Your task to perform on an android device: Search for the best gaming monitor on Best Buy Image 0: 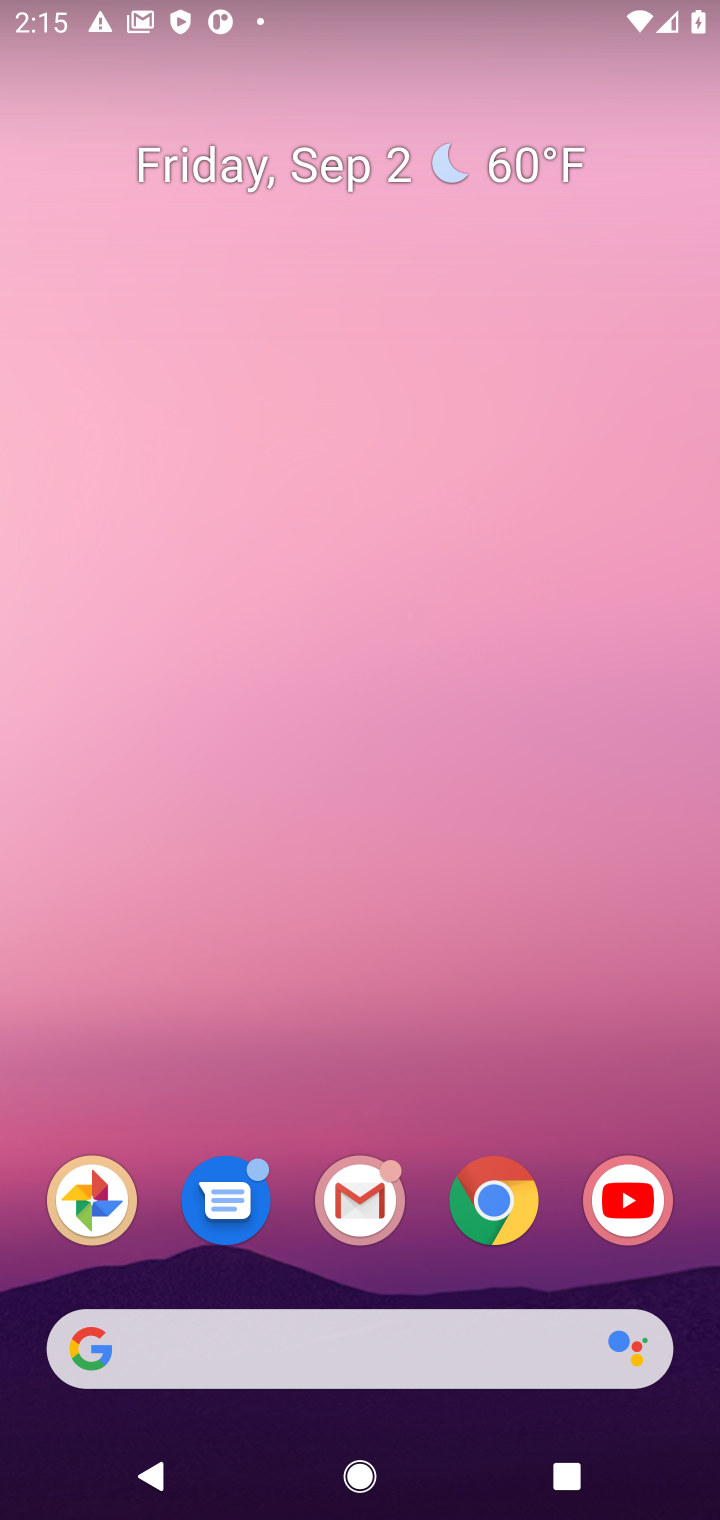
Step 0: click (496, 1199)
Your task to perform on an android device: Search for the best gaming monitor on Best Buy Image 1: 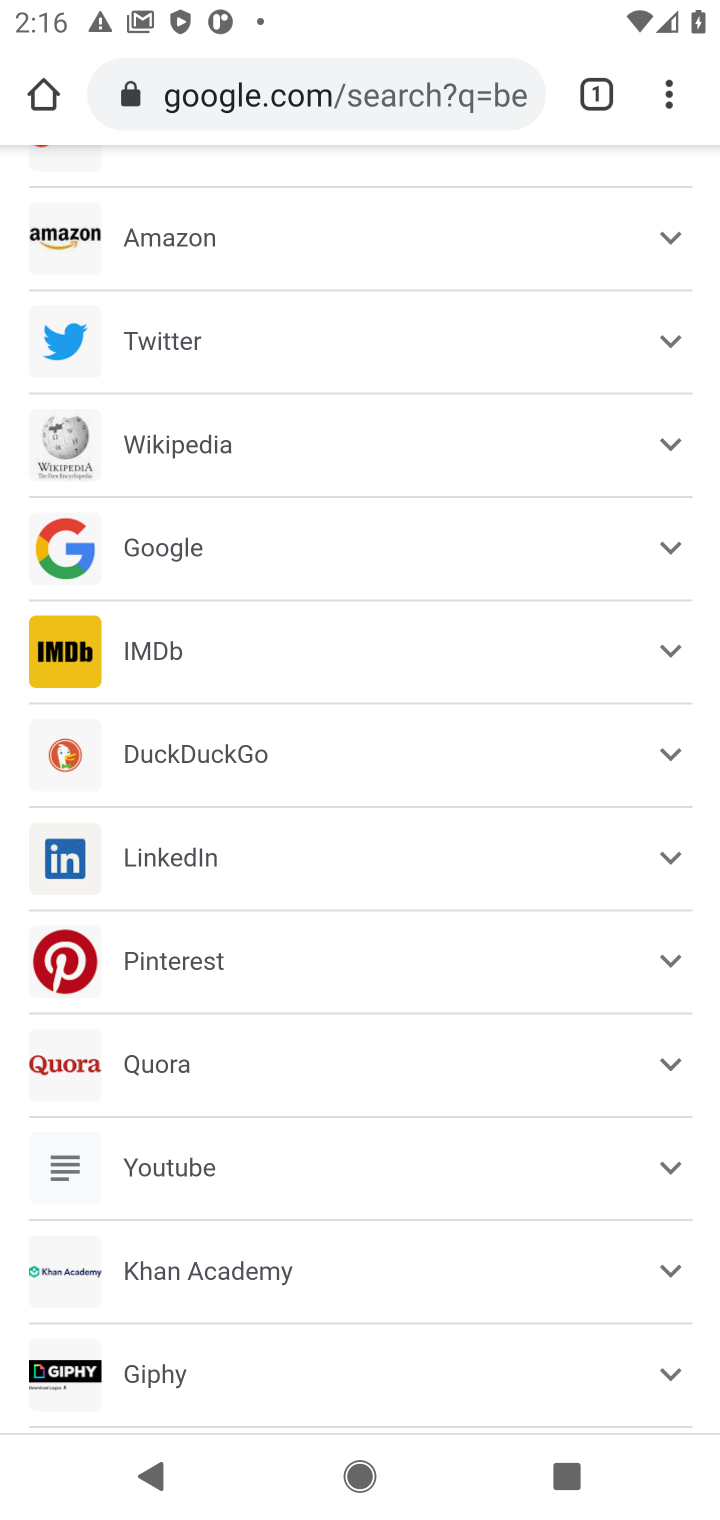
Step 1: click (352, 77)
Your task to perform on an android device: Search for the best gaming monitor on Best Buy Image 2: 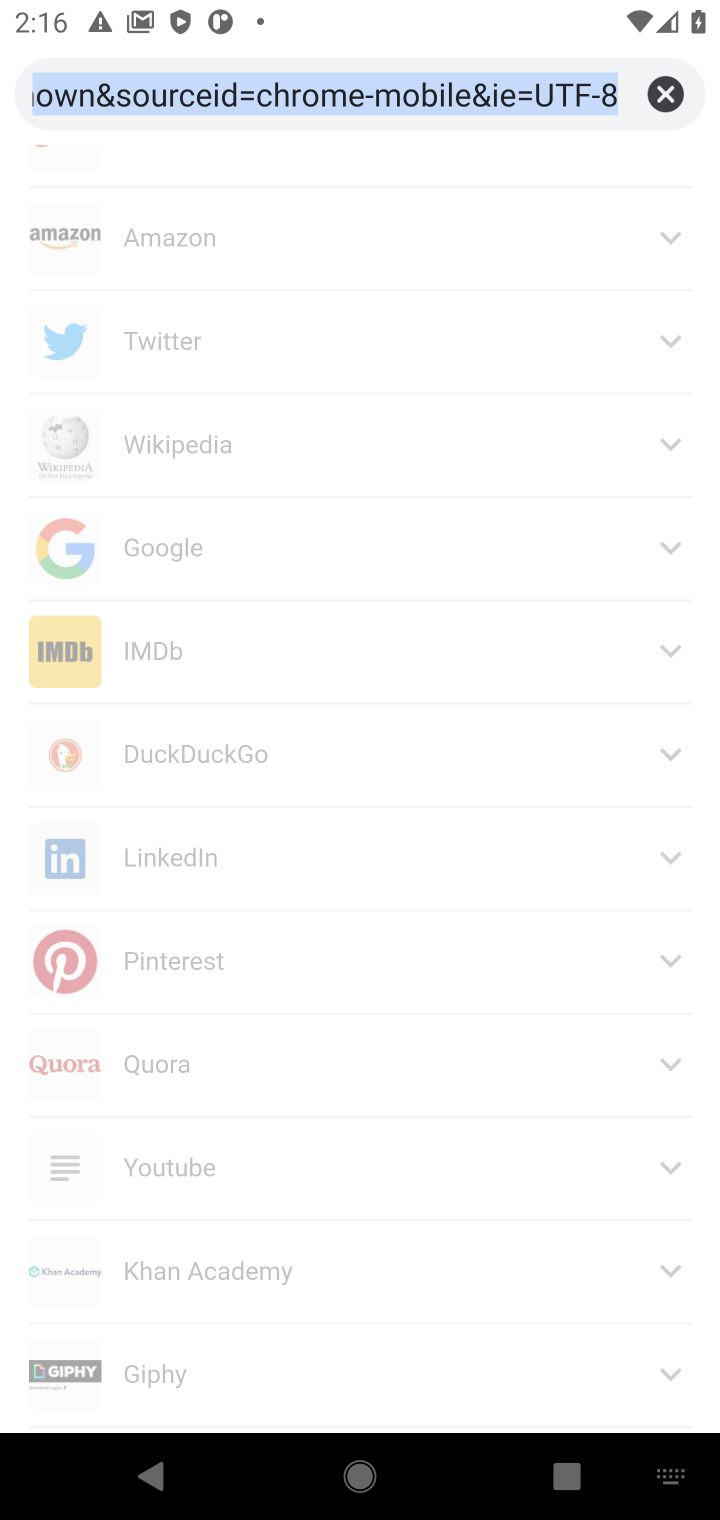
Step 2: click (665, 84)
Your task to perform on an android device: Search for the best gaming monitor on Best Buy Image 3: 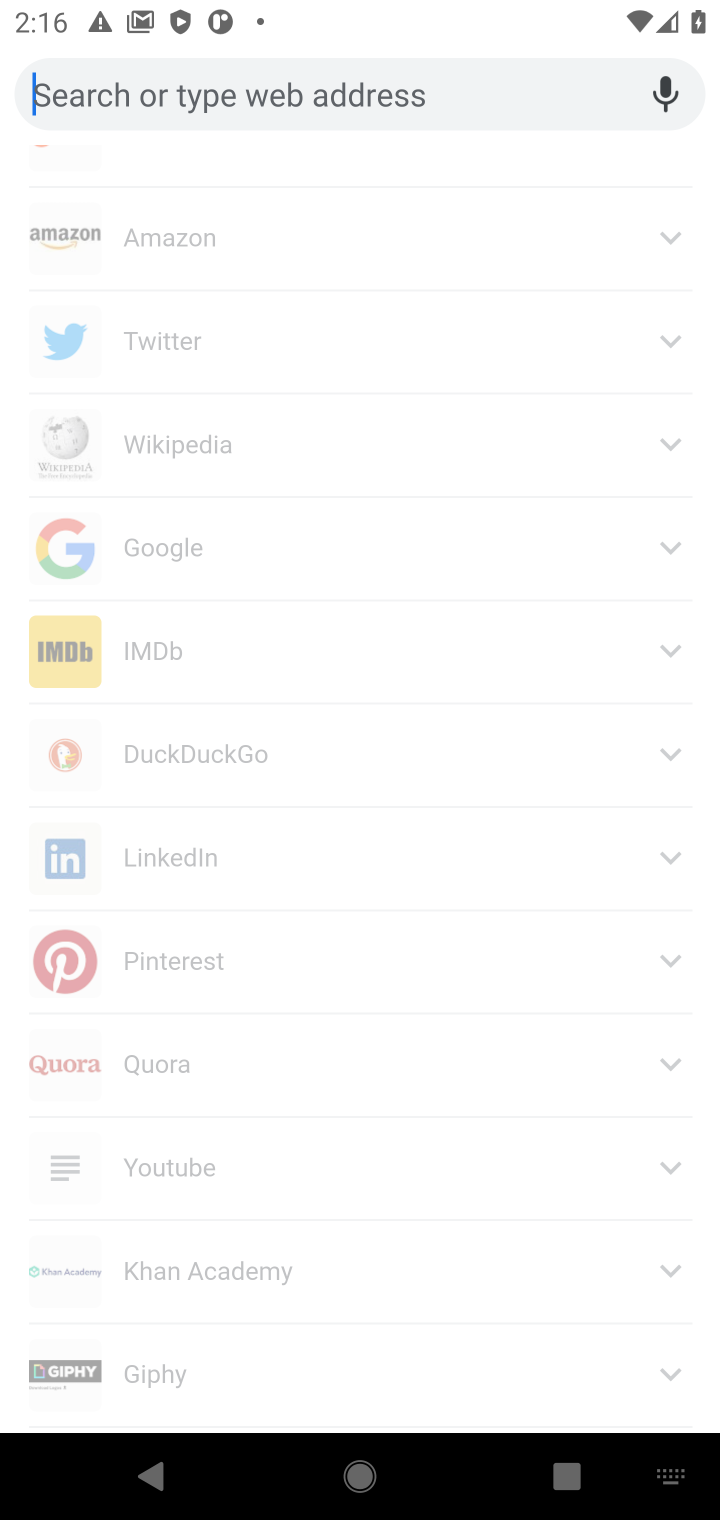
Step 3: click (499, 85)
Your task to perform on an android device: Search for the best gaming monitor on Best Buy Image 4: 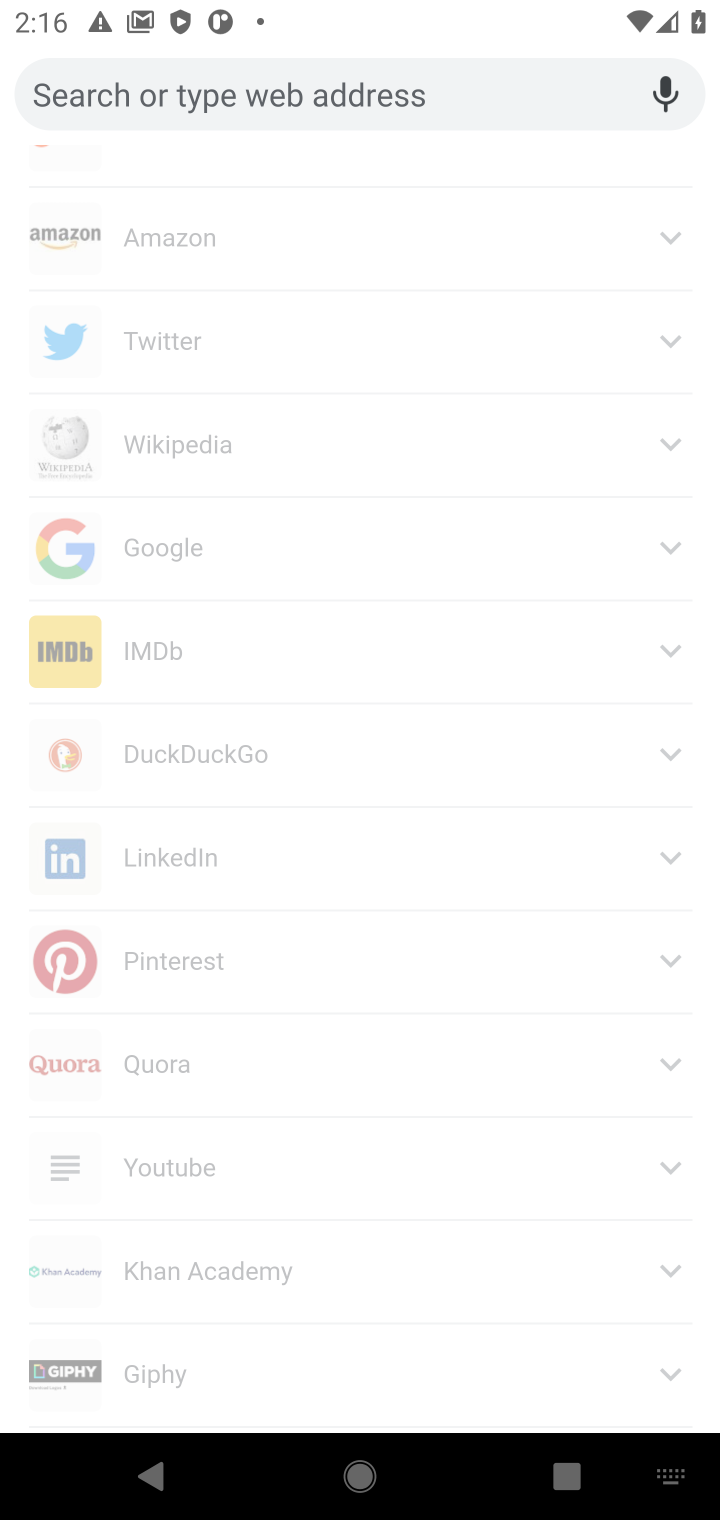
Step 4: type "Best Buy"
Your task to perform on an android device: Search for the best gaming monitor on Best Buy Image 5: 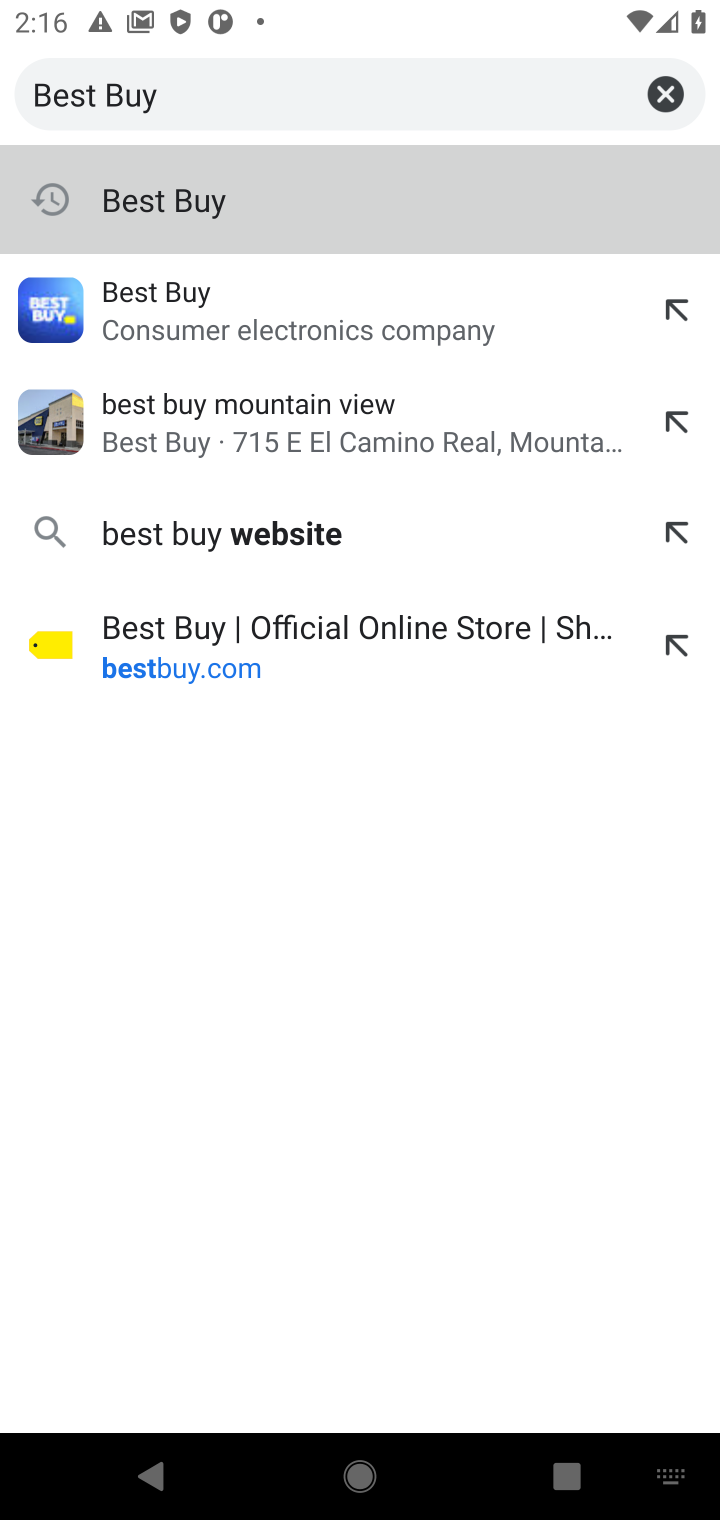
Step 5: press enter
Your task to perform on an android device: Search for the best gaming monitor on Best Buy Image 6: 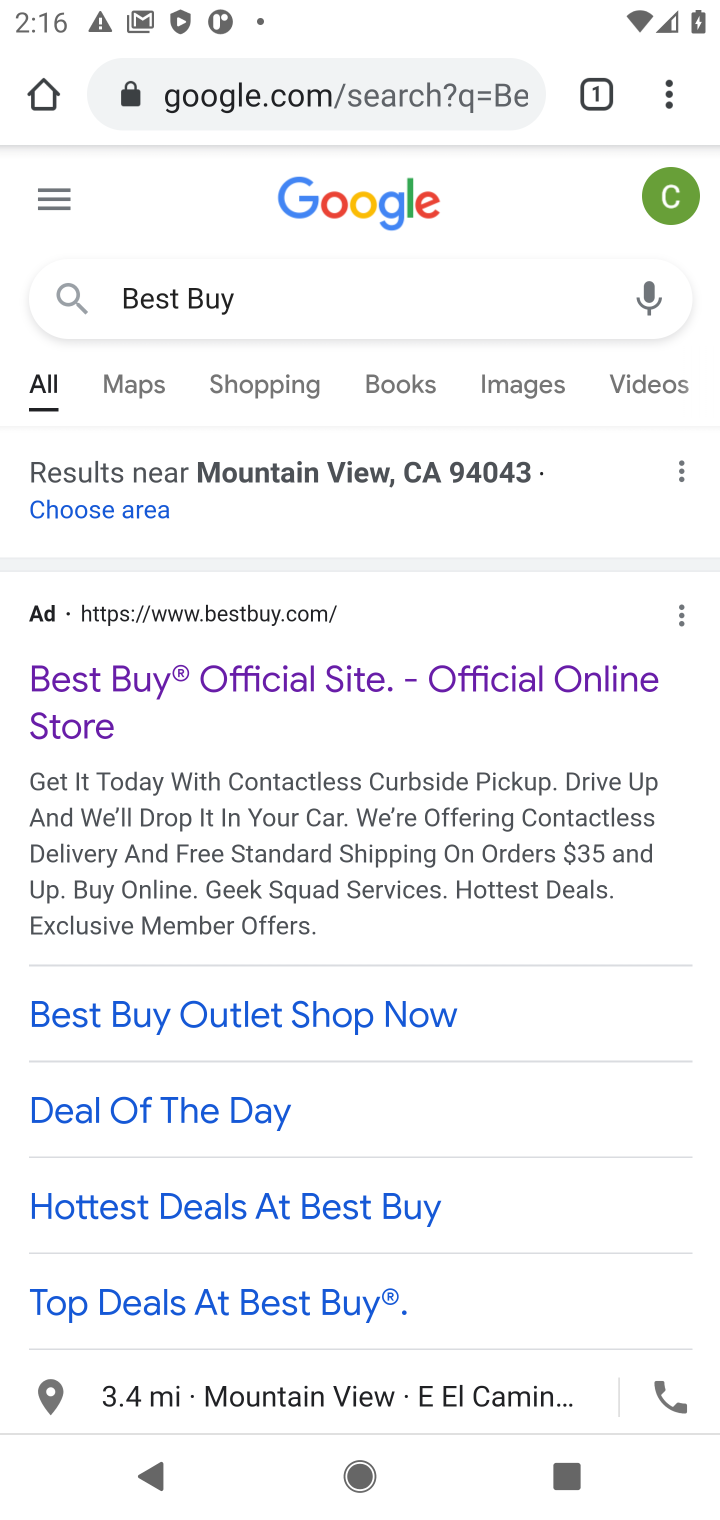
Step 6: drag from (525, 789) to (597, 216)
Your task to perform on an android device: Search for the best gaming monitor on Best Buy Image 7: 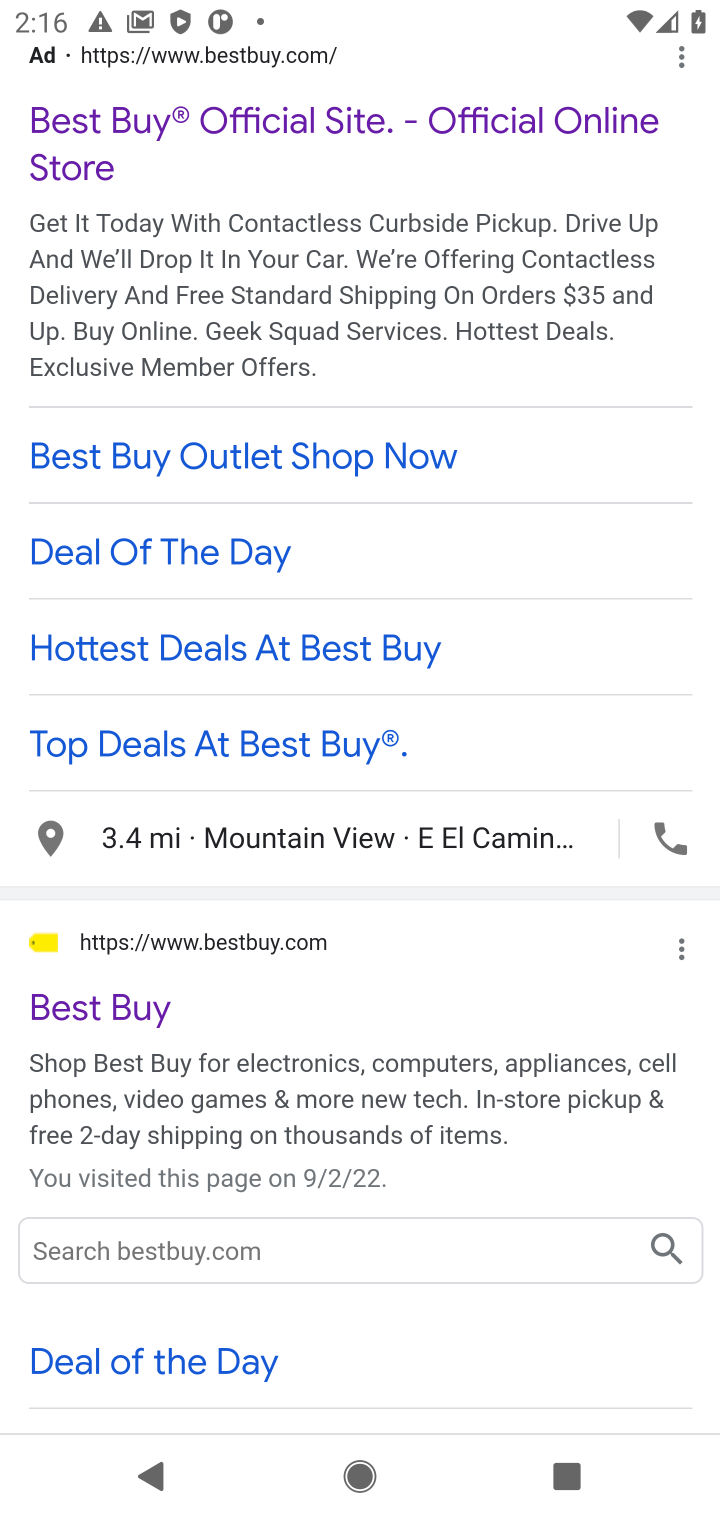
Step 7: click (108, 1009)
Your task to perform on an android device: Search for the best gaming monitor on Best Buy Image 8: 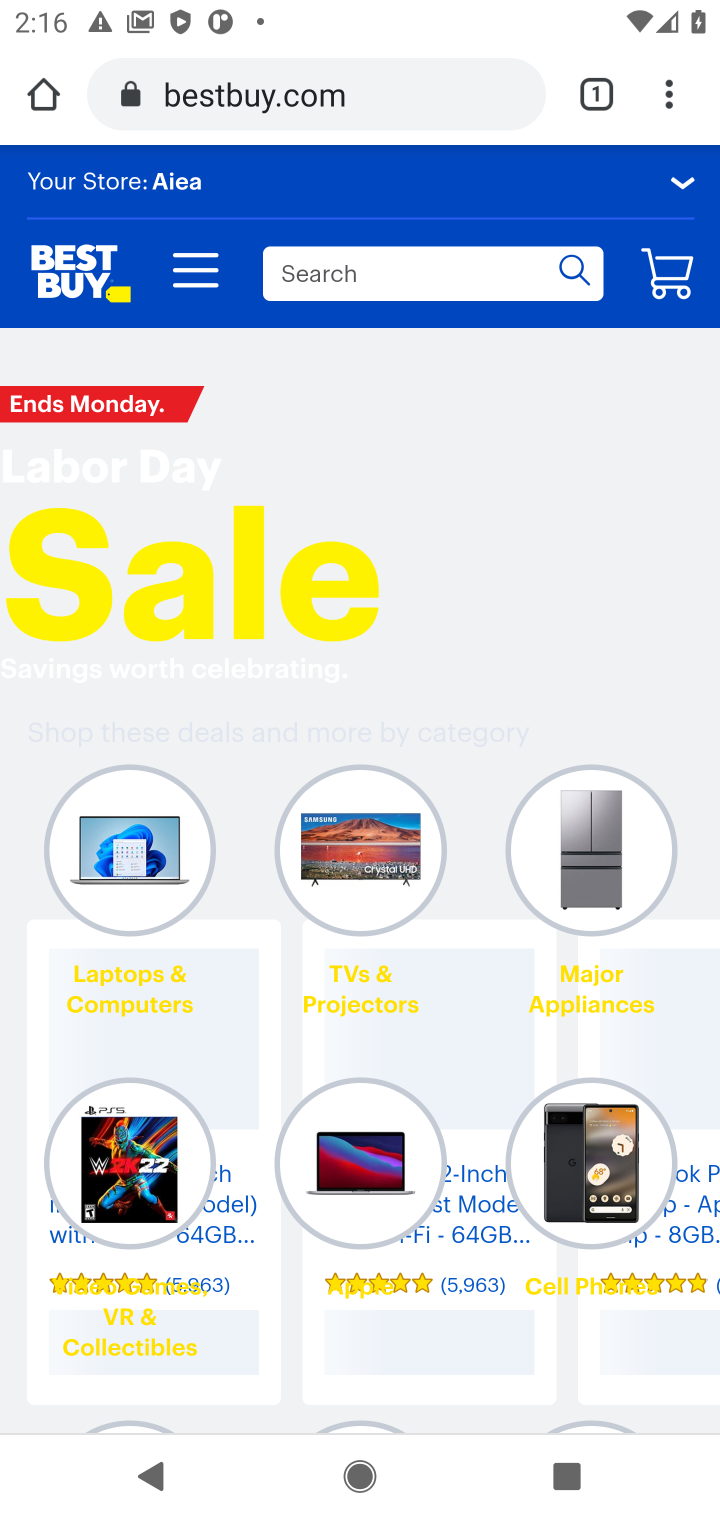
Step 8: click (428, 276)
Your task to perform on an android device: Search for the best gaming monitor on Best Buy Image 9: 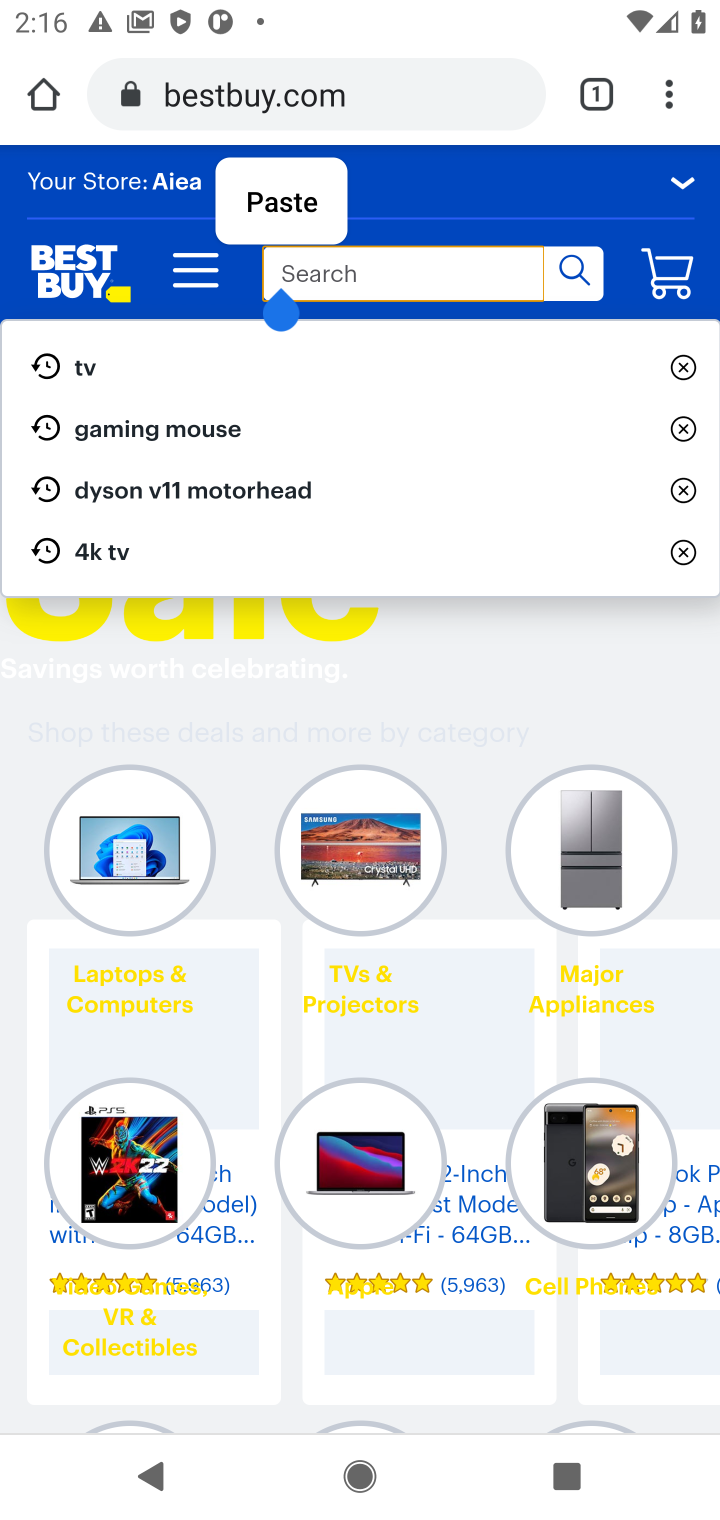
Step 9: click (451, 274)
Your task to perform on an android device: Search for the best gaming monitor on Best Buy Image 10: 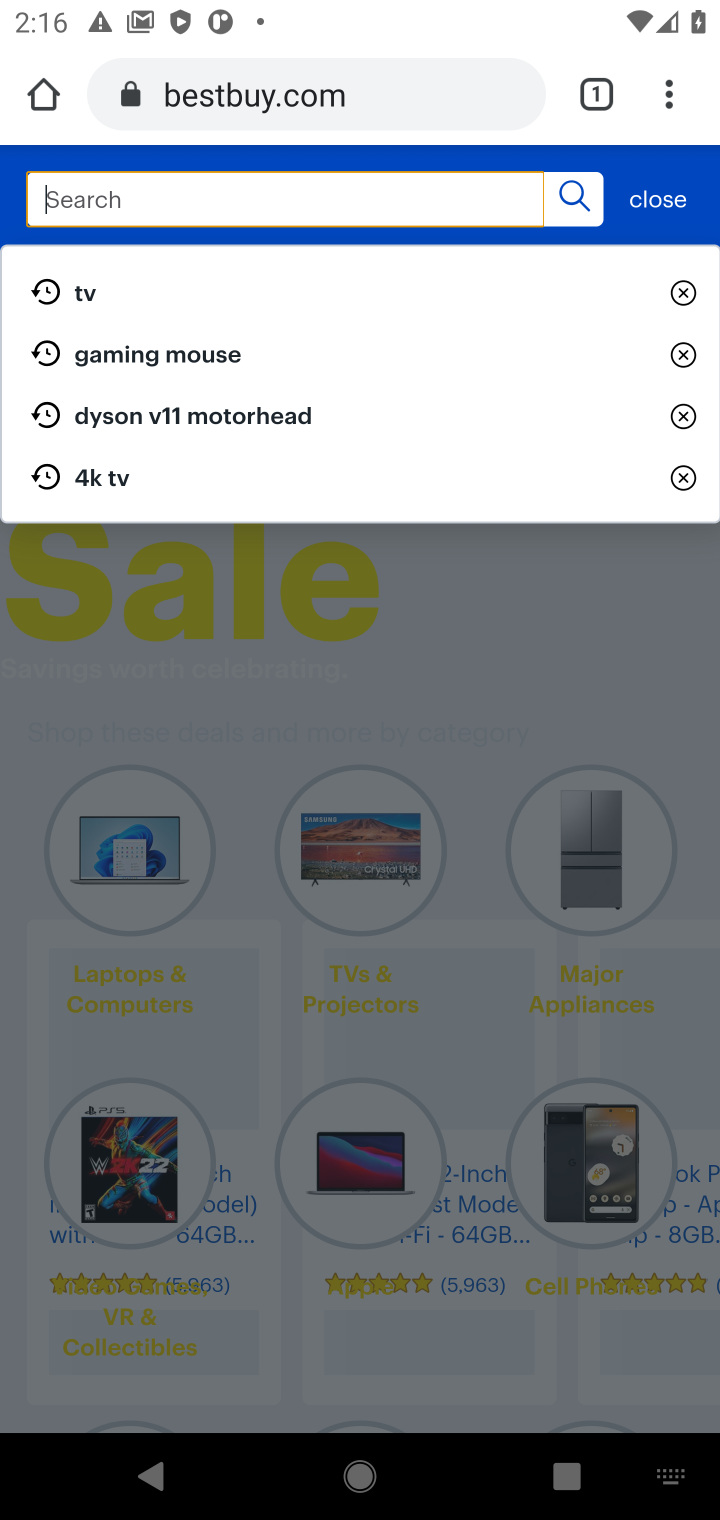
Step 10: click (425, 186)
Your task to perform on an android device: Search for the best gaming monitor on Best Buy Image 11: 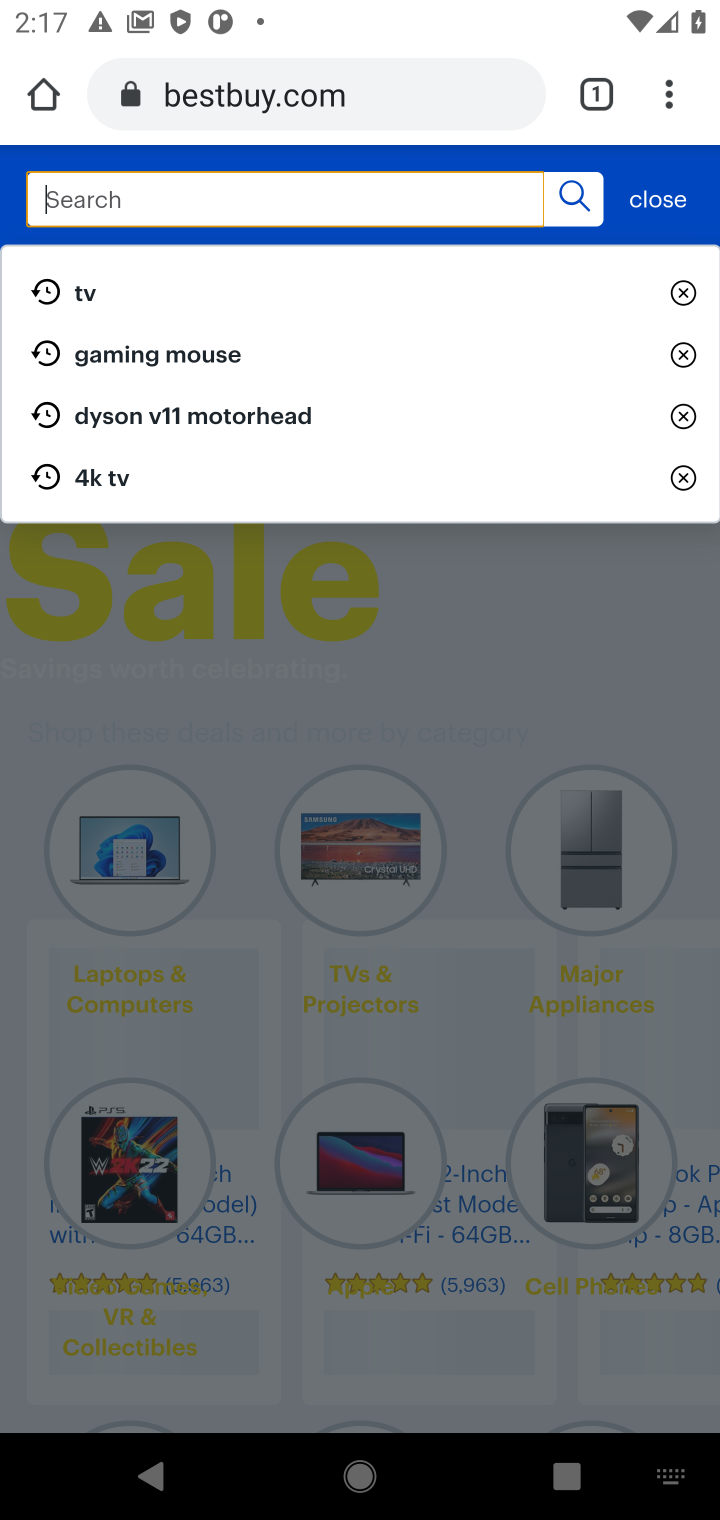
Step 11: type " gaming monitor "
Your task to perform on an android device: Search for the best gaming monitor on Best Buy Image 12: 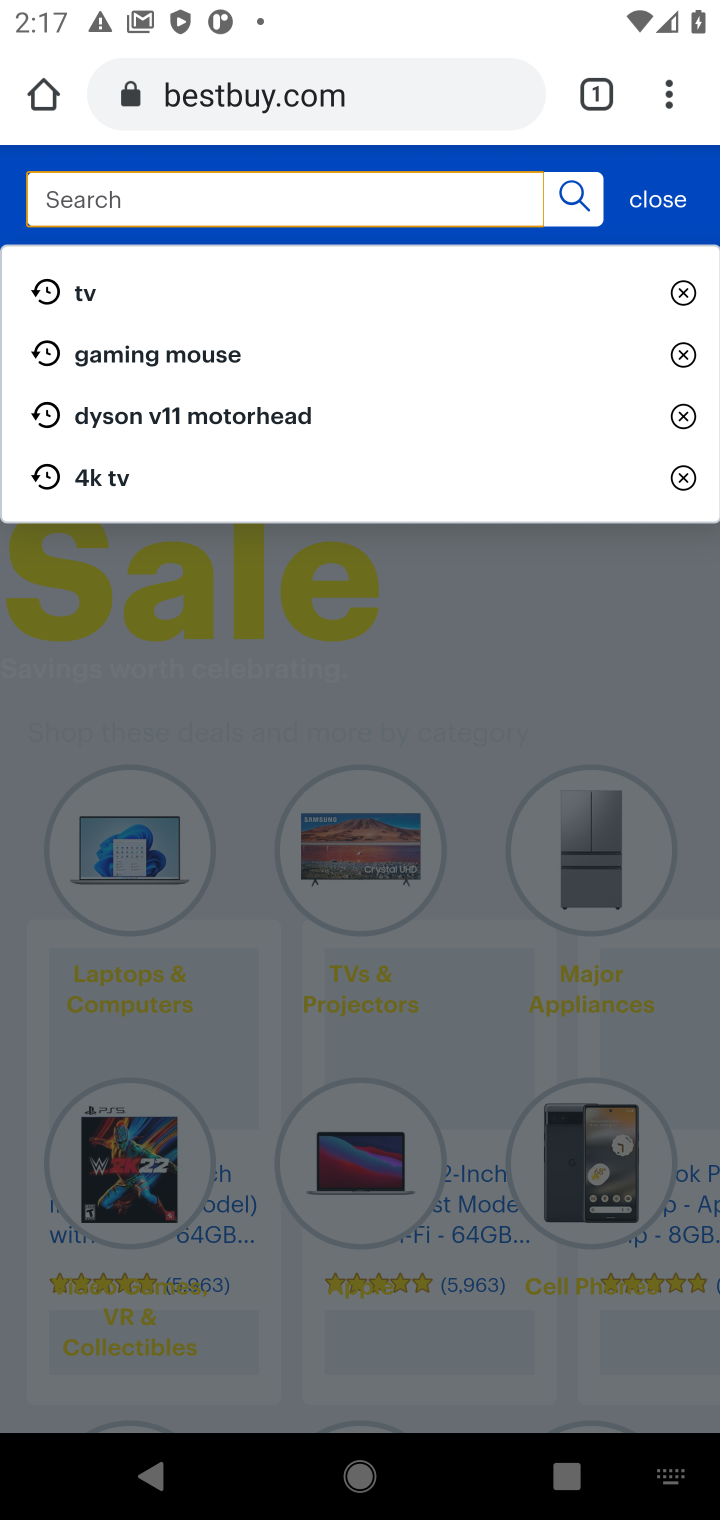
Step 12: press enter
Your task to perform on an android device: Search for the best gaming monitor on Best Buy Image 13: 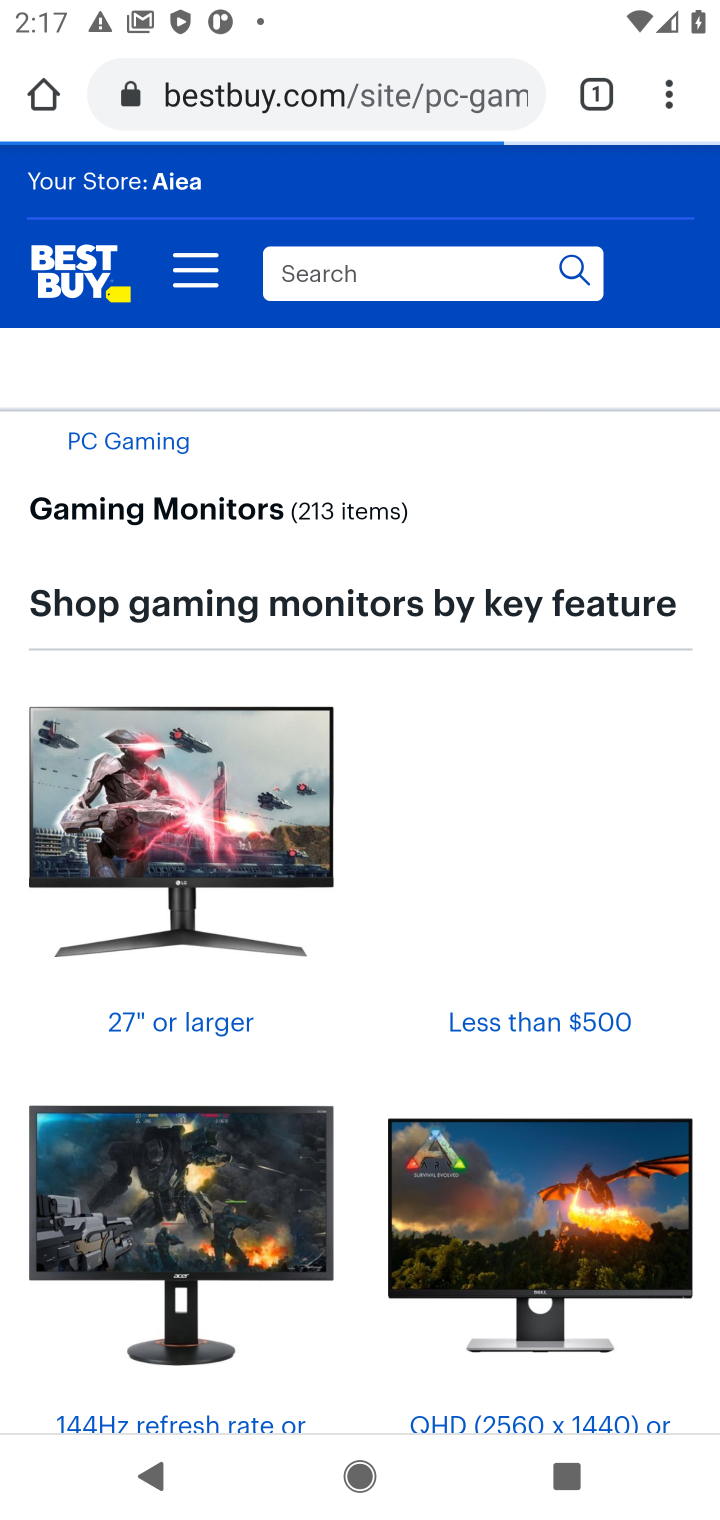
Step 13: click (565, 194)
Your task to perform on an android device: Search for the best gaming monitor on Best Buy Image 14: 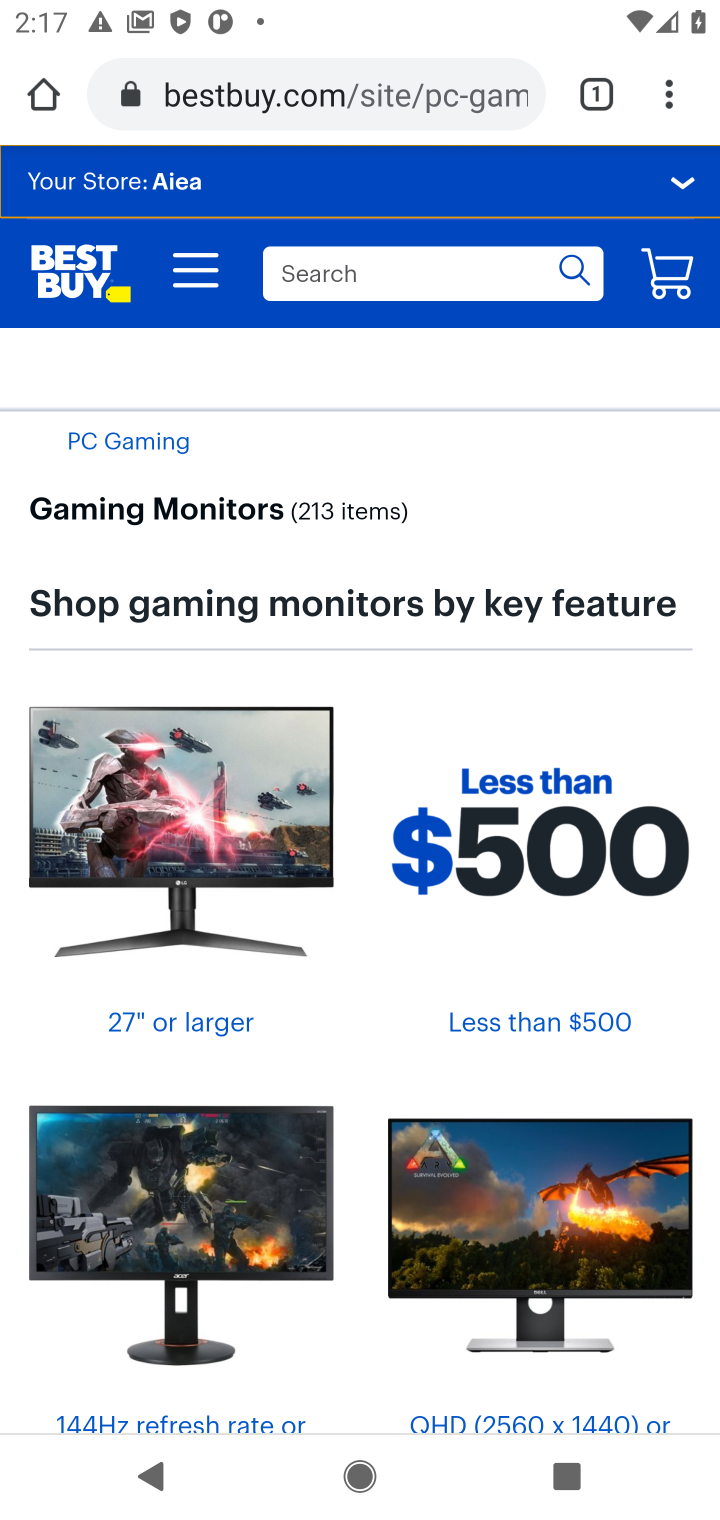
Step 14: task complete